Your task to perform on an android device: Show me the alarms in the clock app Image 0: 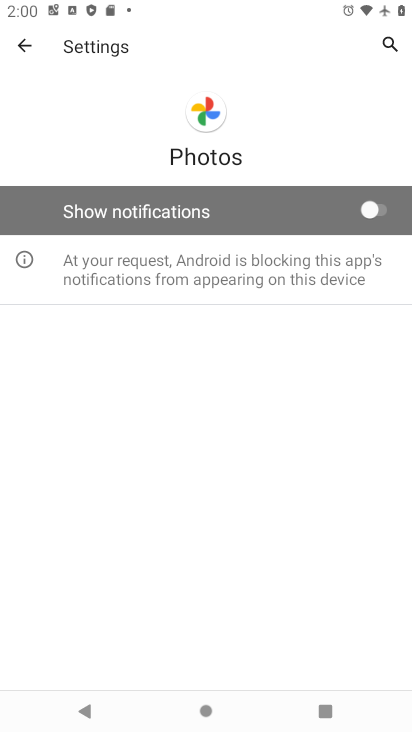
Step 0: press home button
Your task to perform on an android device: Show me the alarms in the clock app Image 1: 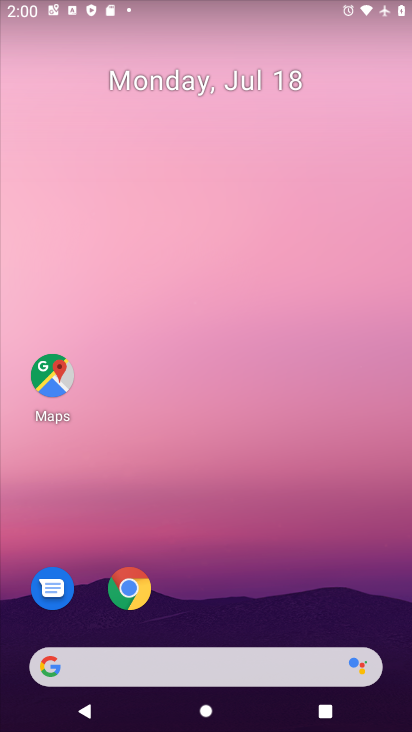
Step 1: drag from (202, 670) to (213, 233)
Your task to perform on an android device: Show me the alarms in the clock app Image 2: 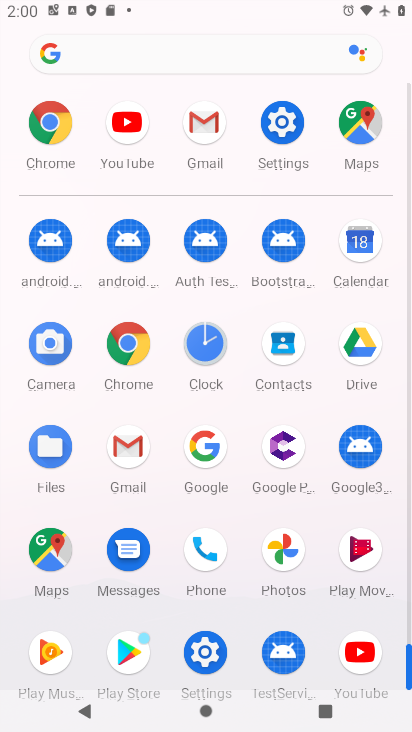
Step 2: click (202, 346)
Your task to perform on an android device: Show me the alarms in the clock app Image 3: 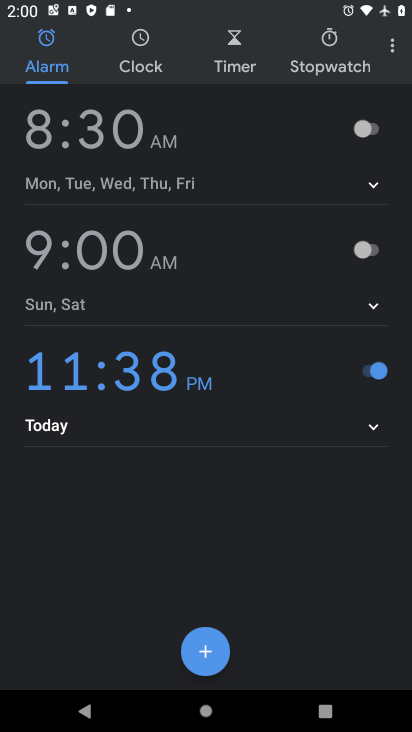
Step 3: task complete